Your task to perform on an android device: Open calendar and show me the first week of next month Image 0: 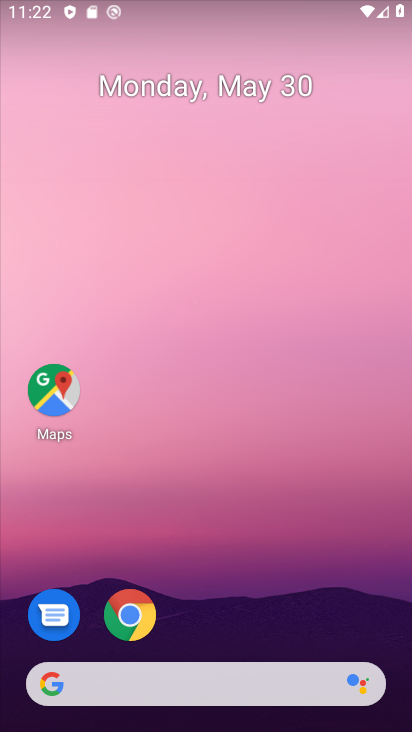
Step 0: drag from (354, 603) to (352, 123)
Your task to perform on an android device: Open calendar and show me the first week of next month Image 1: 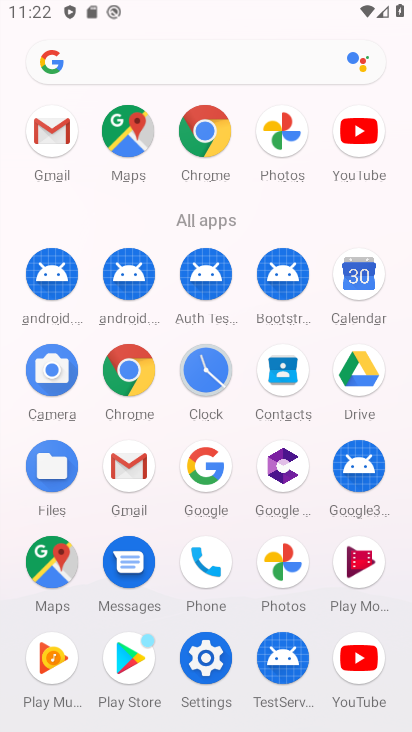
Step 1: click (362, 299)
Your task to perform on an android device: Open calendar and show me the first week of next month Image 2: 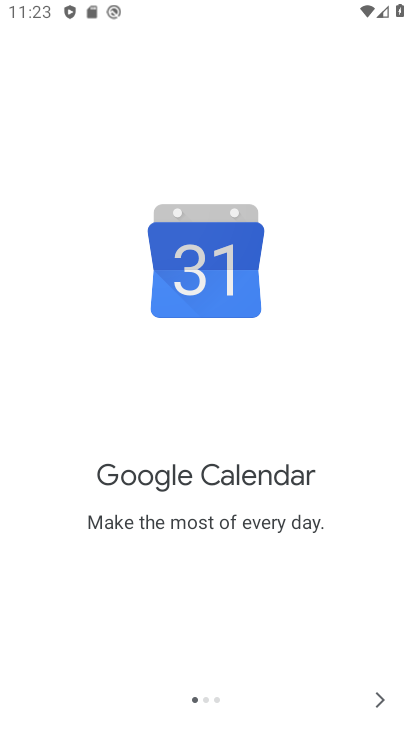
Step 2: click (385, 699)
Your task to perform on an android device: Open calendar and show me the first week of next month Image 3: 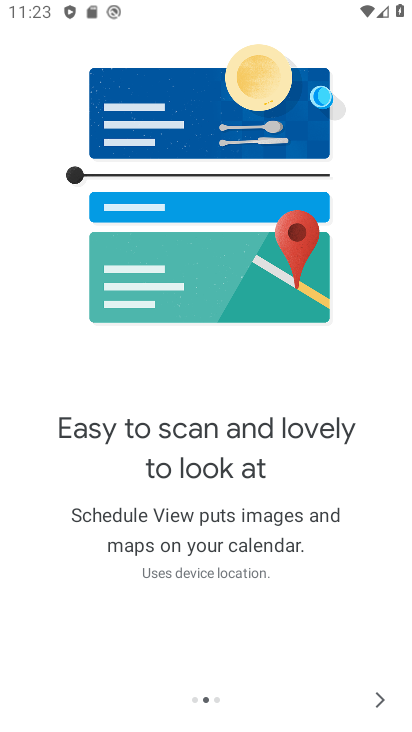
Step 3: click (369, 698)
Your task to perform on an android device: Open calendar and show me the first week of next month Image 4: 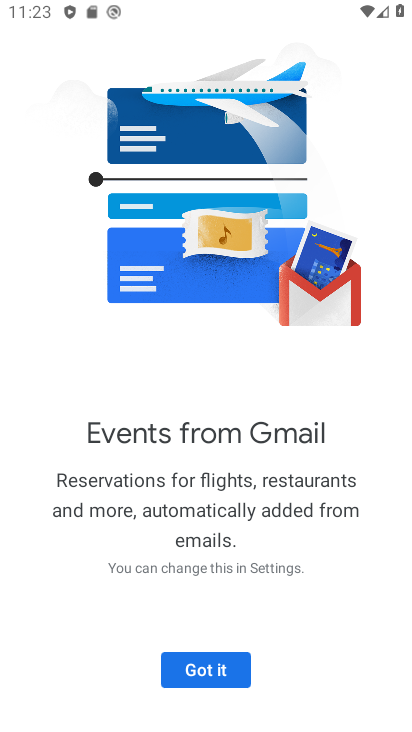
Step 4: click (218, 663)
Your task to perform on an android device: Open calendar and show me the first week of next month Image 5: 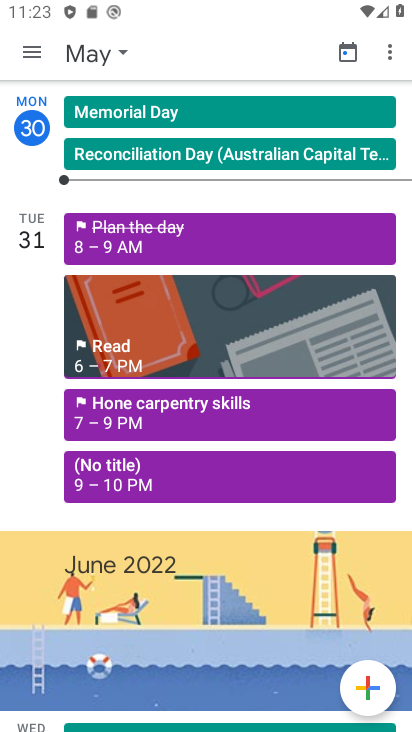
Step 5: click (119, 54)
Your task to perform on an android device: Open calendar and show me the first week of next month Image 6: 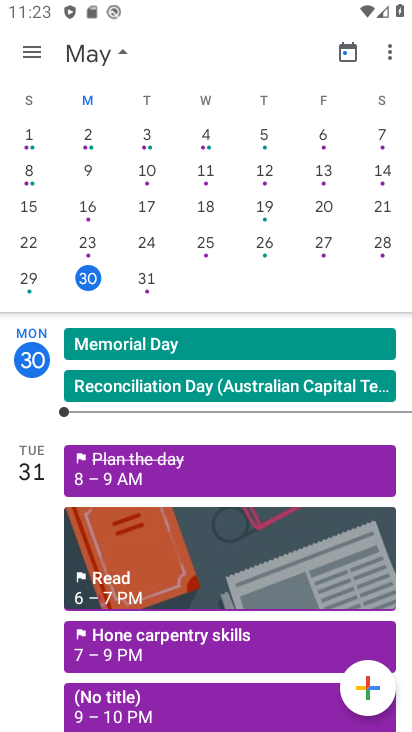
Step 6: drag from (394, 111) to (34, 121)
Your task to perform on an android device: Open calendar and show me the first week of next month Image 7: 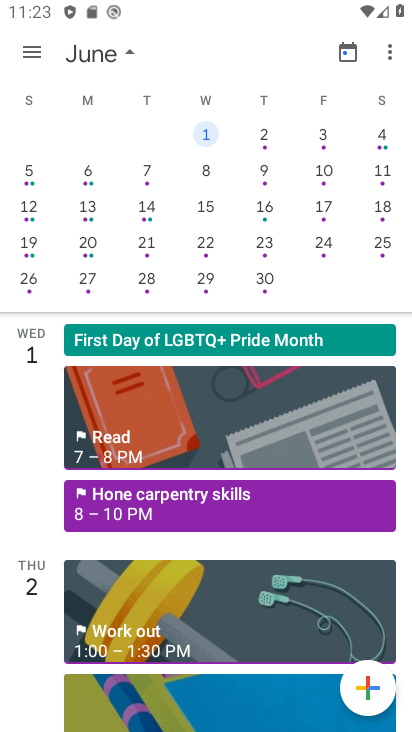
Step 7: click (263, 145)
Your task to perform on an android device: Open calendar and show me the first week of next month Image 8: 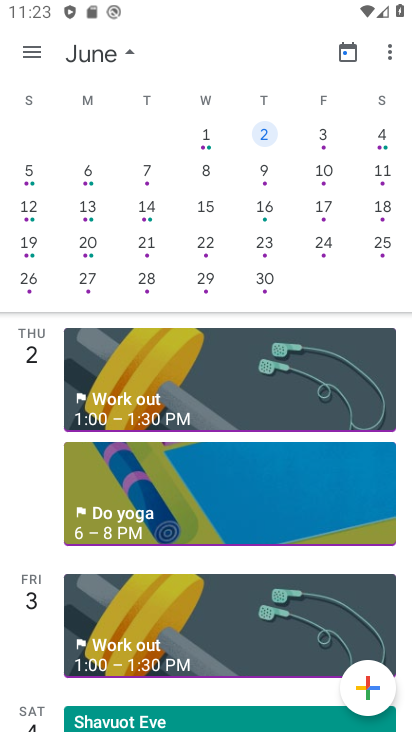
Step 8: task complete